Your task to perform on an android device: Open Chrome and go to settings Image 0: 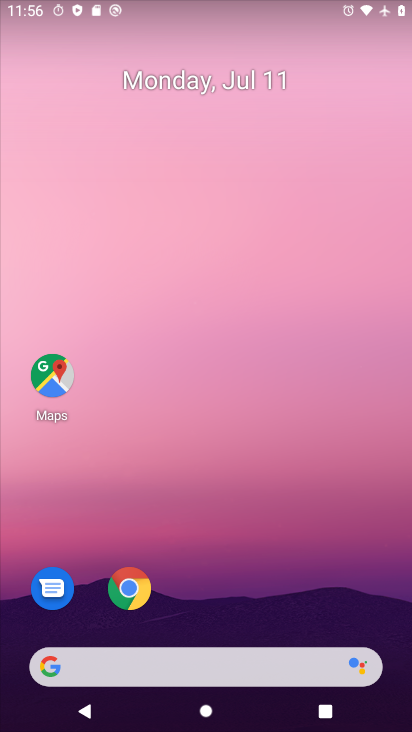
Step 0: click (128, 591)
Your task to perform on an android device: Open Chrome and go to settings Image 1: 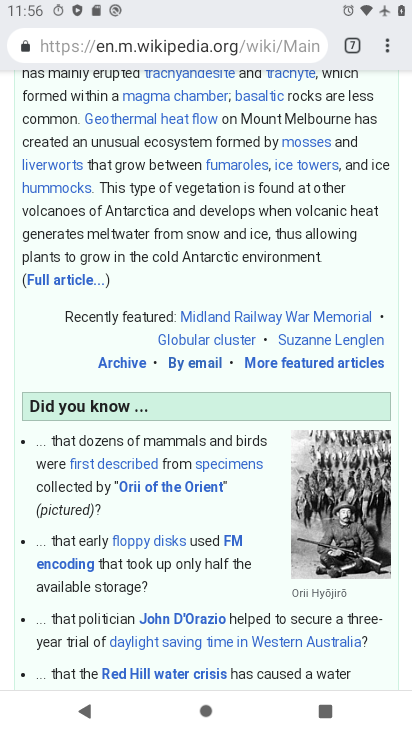
Step 1: task complete